Your task to perform on an android device: What's the weather going to be tomorrow? Image 0: 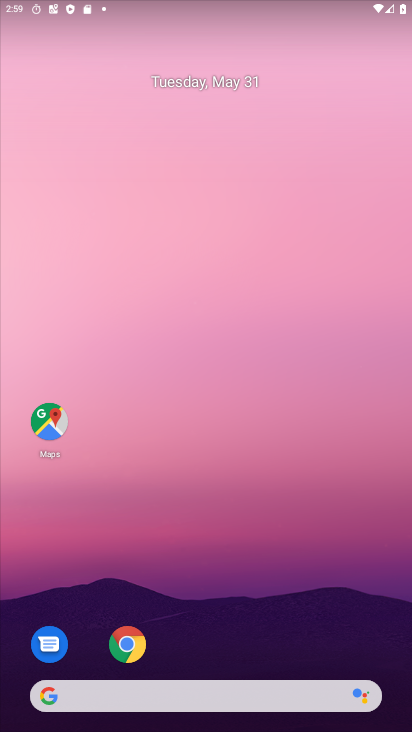
Step 0: drag from (68, 344) to (410, 375)
Your task to perform on an android device: What's the weather going to be tomorrow? Image 1: 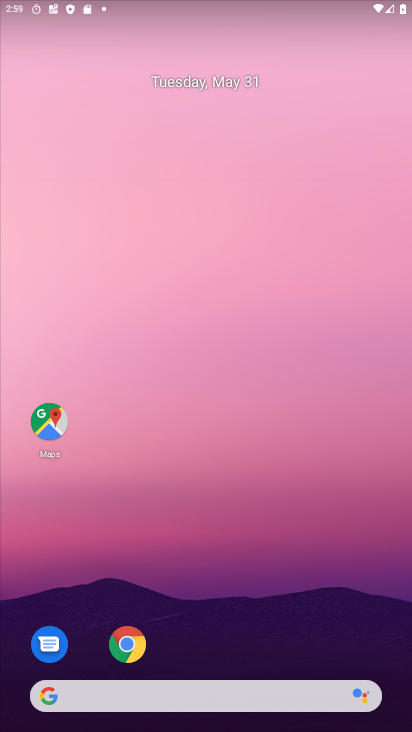
Step 1: drag from (0, 278) to (325, 288)
Your task to perform on an android device: What's the weather going to be tomorrow? Image 2: 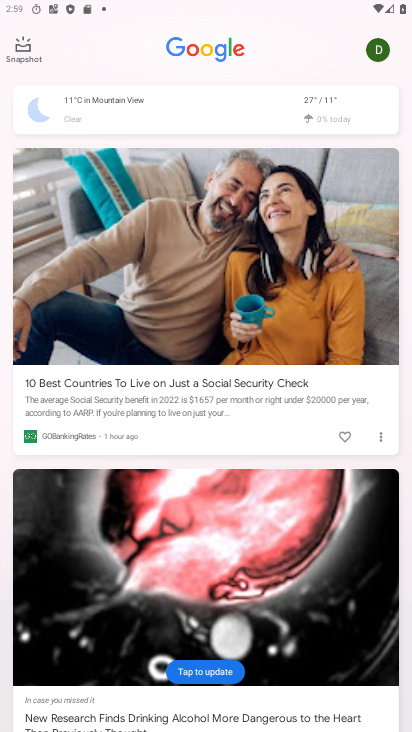
Step 2: click (313, 97)
Your task to perform on an android device: What's the weather going to be tomorrow? Image 3: 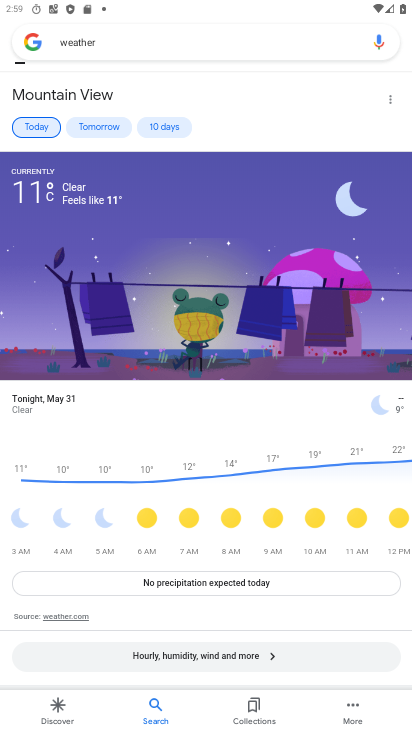
Step 3: task complete